Your task to perform on an android device: Open Google Chrome Image 0: 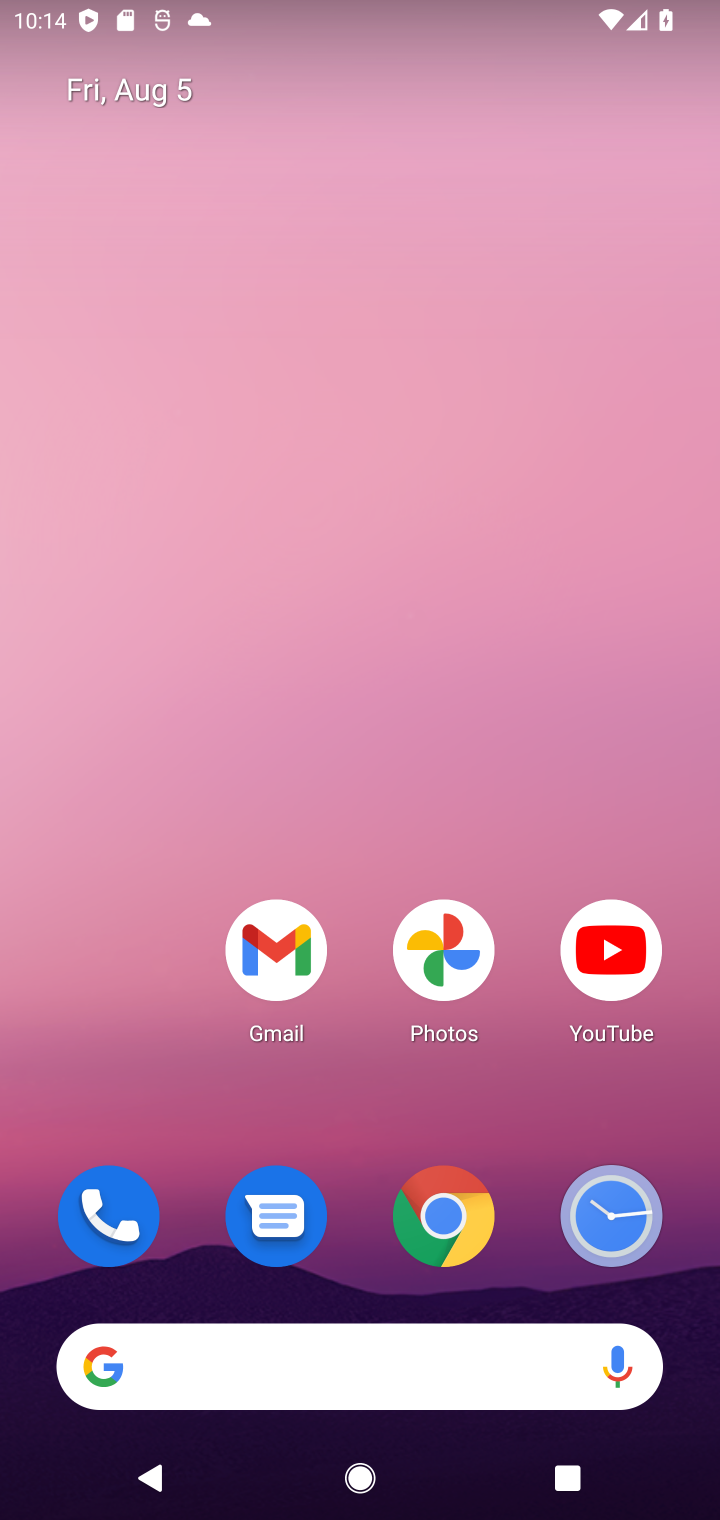
Step 0: drag from (418, 1360) to (481, 665)
Your task to perform on an android device: Open Google Chrome Image 1: 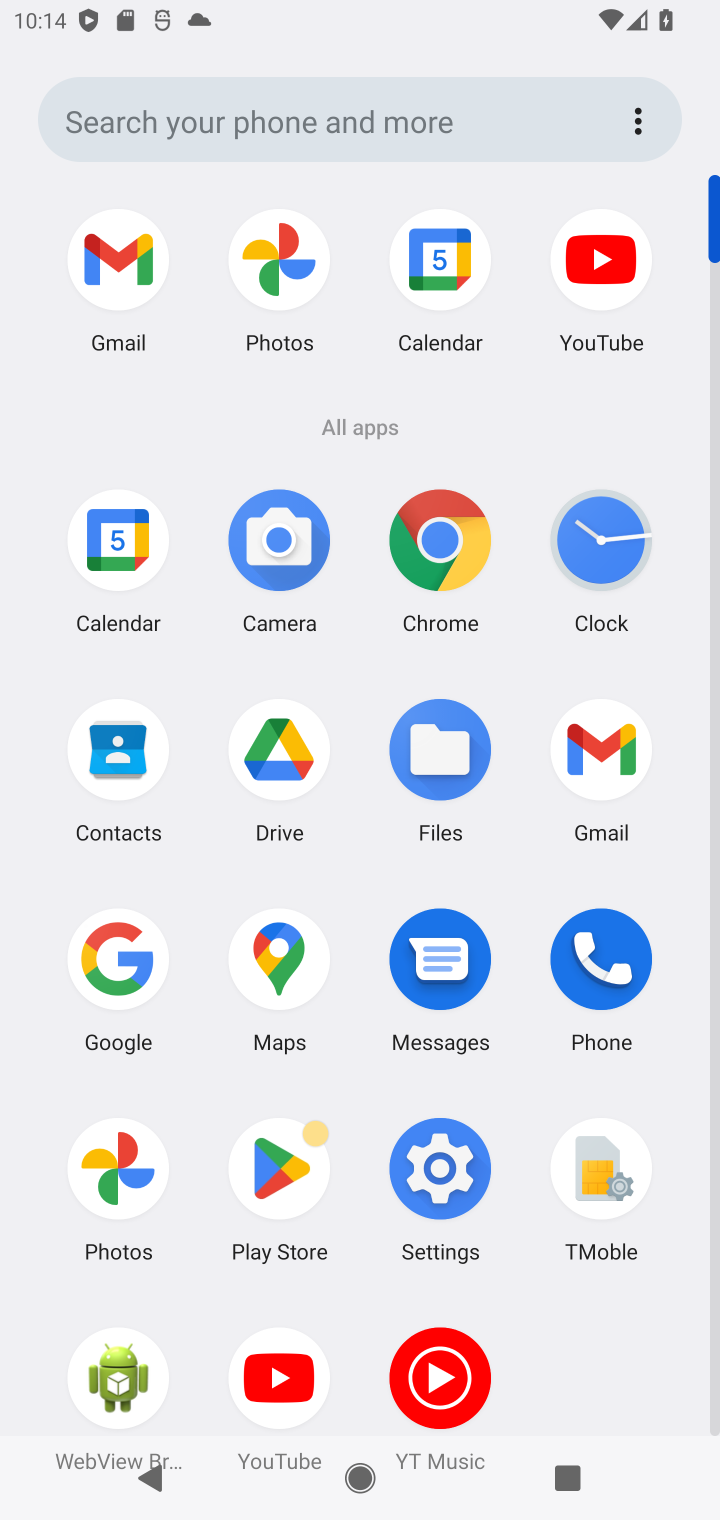
Step 1: click (467, 511)
Your task to perform on an android device: Open Google Chrome Image 2: 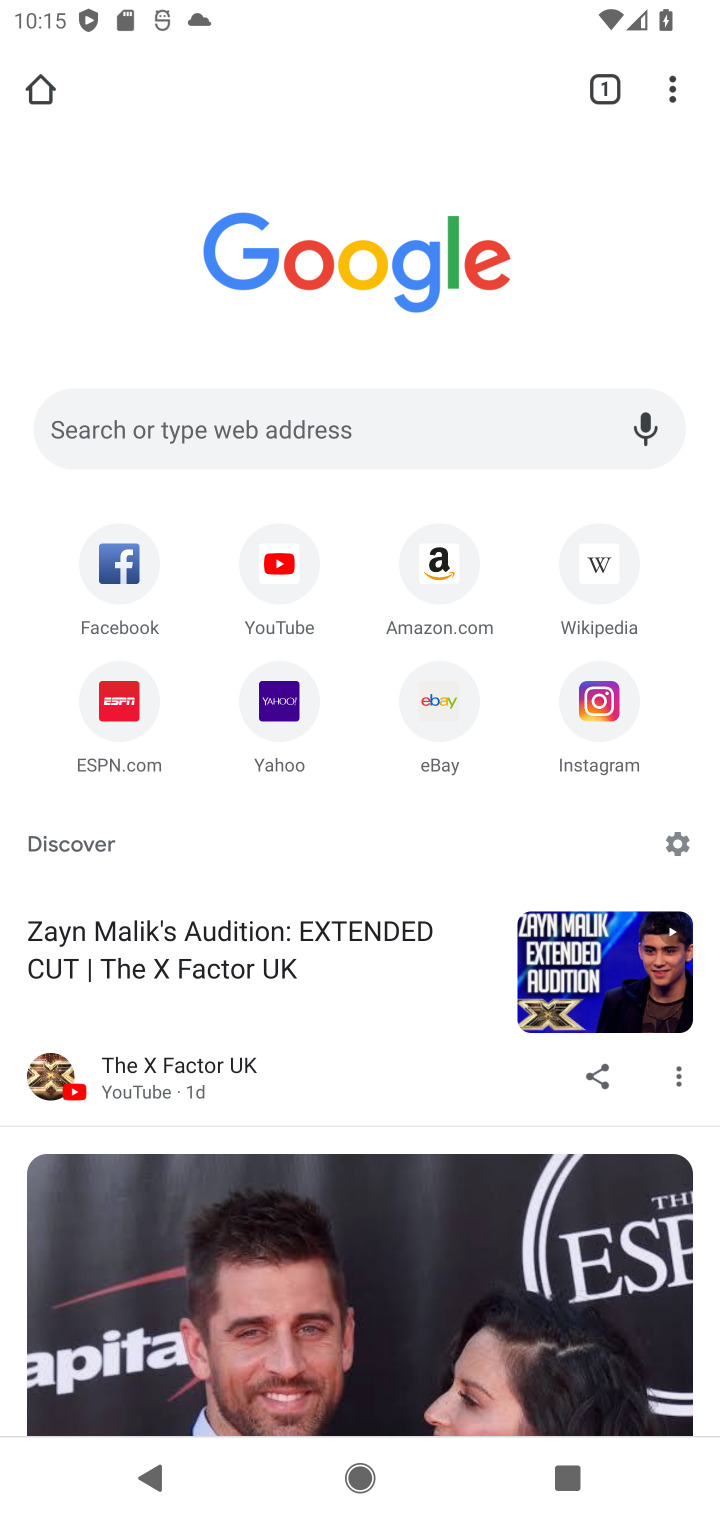
Step 2: task complete